Your task to perform on an android device: Turn on the flashlight Image 0: 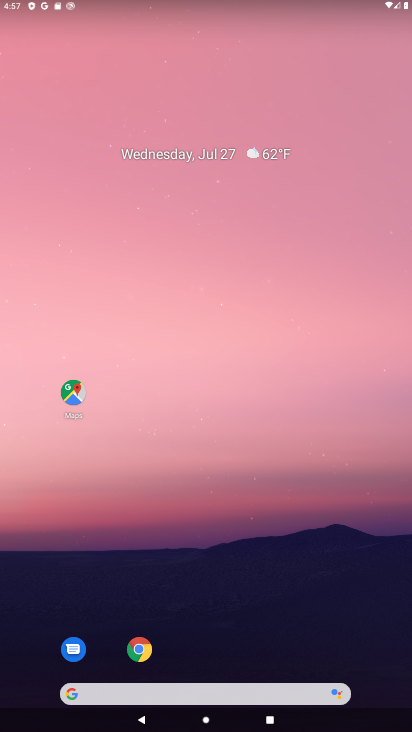
Step 0: task impossible